Your task to perform on an android device: turn smart compose on in the gmail app Image 0: 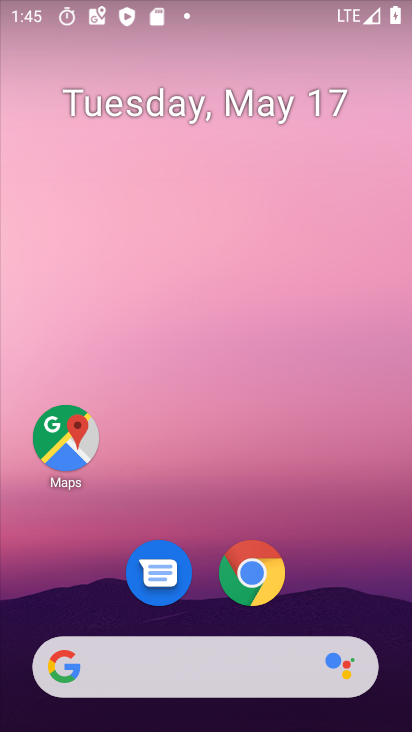
Step 0: drag from (231, 651) to (302, 5)
Your task to perform on an android device: turn smart compose on in the gmail app Image 1: 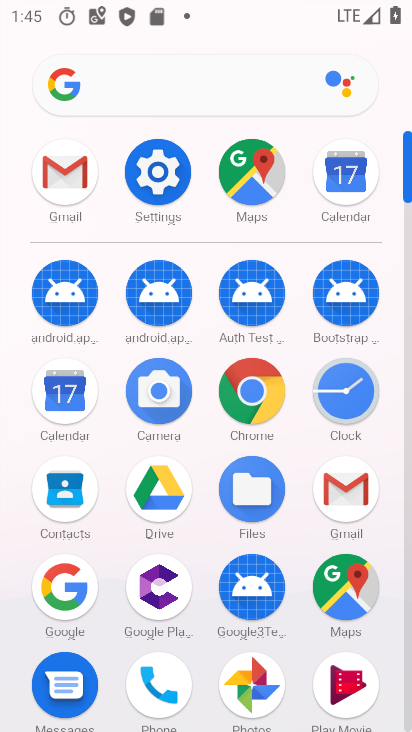
Step 1: click (58, 162)
Your task to perform on an android device: turn smart compose on in the gmail app Image 2: 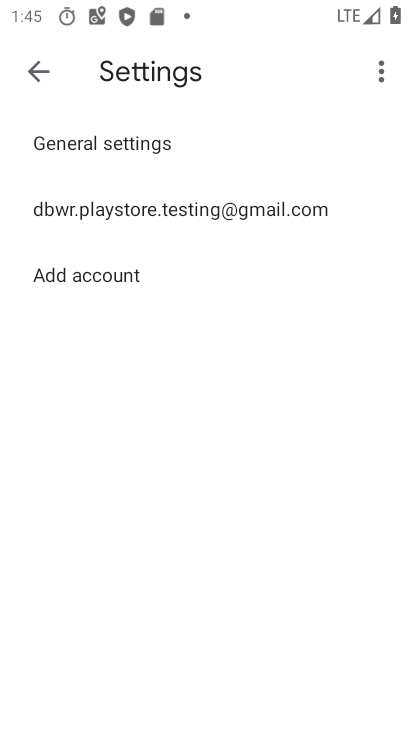
Step 2: click (153, 211)
Your task to perform on an android device: turn smart compose on in the gmail app Image 3: 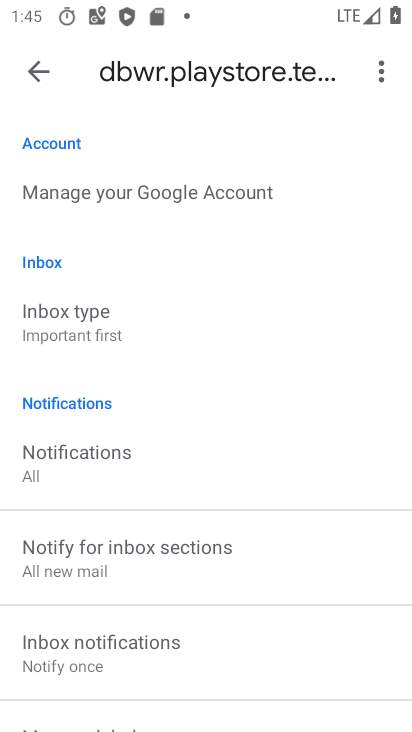
Step 3: task complete